Your task to perform on an android device: turn on priority inbox in the gmail app Image 0: 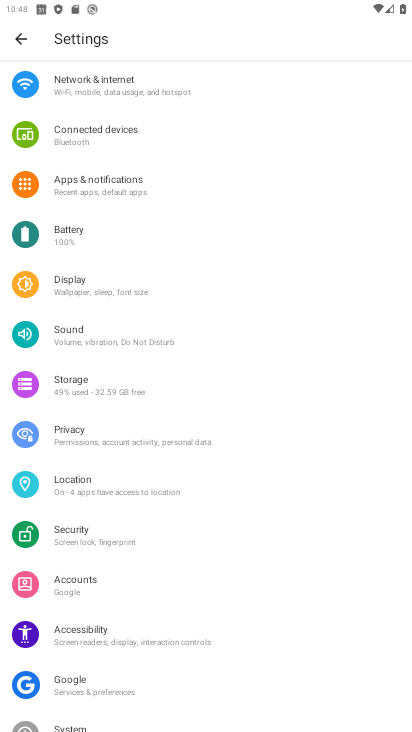
Step 0: press home button
Your task to perform on an android device: turn on priority inbox in the gmail app Image 1: 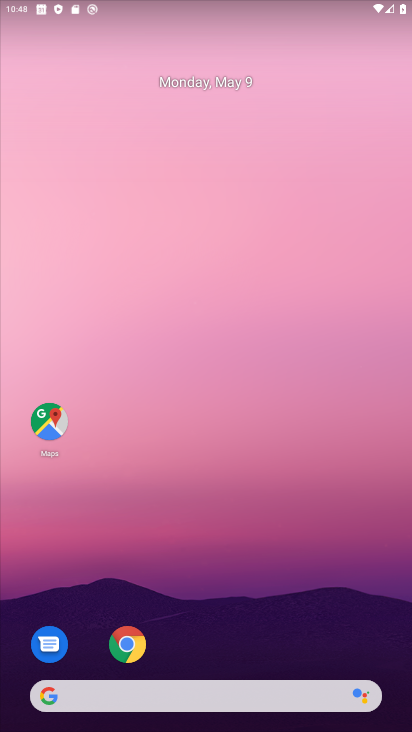
Step 1: drag from (163, 670) to (270, 16)
Your task to perform on an android device: turn on priority inbox in the gmail app Image 2: 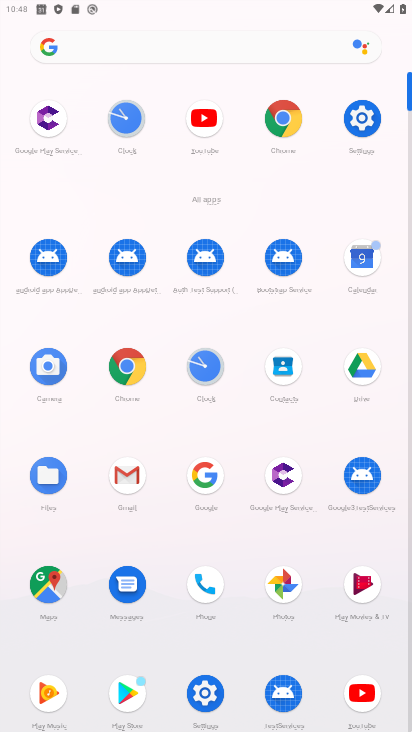
Step 2: click (134, 489)
Your task to perform on an android device: turn on priority inbox in the gmail app Image 3: 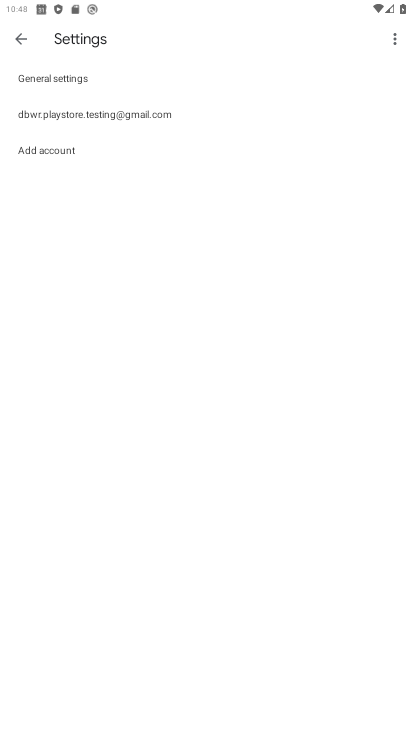
Step 3: click (78, 118)
Your task to perform on an android device: turn on priority inbox in the gmail app Image 4: 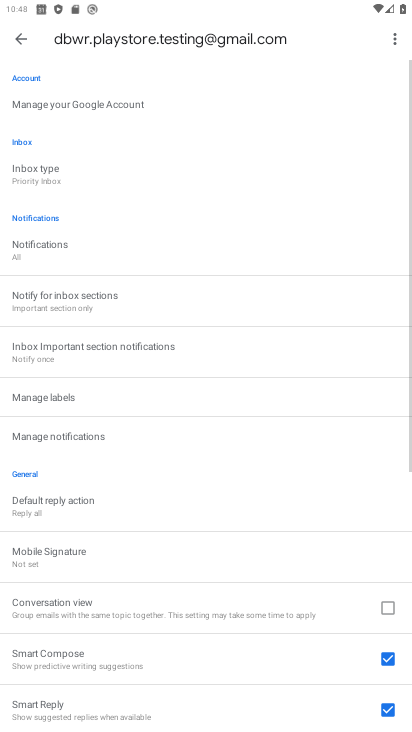
Step 4: click (76, 182)
Your task to perform on an android device: turn on priority inbox in the gmail app Image 5: 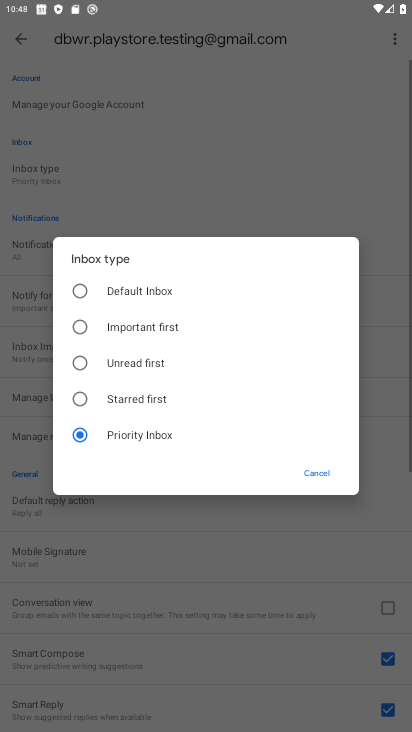
Step 5: task complete